Your task to perform on an android device: Search for pizza restaurants on Maps Image 0: 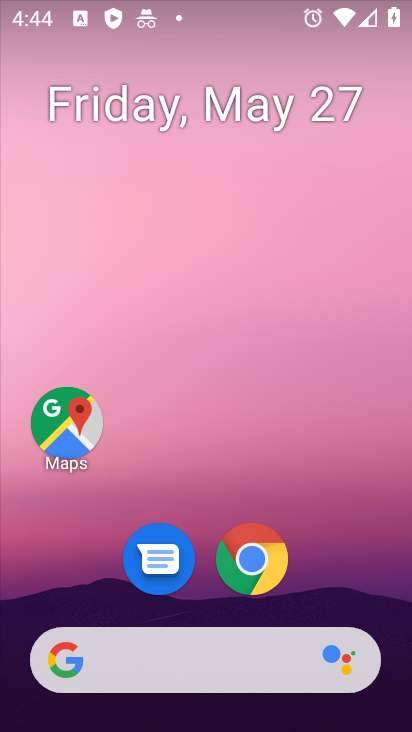
Step 0: drag from (246, 660) to (217, 5)
Your task to perform on an android device: Search for pizza restaurants on Maps Image 1: 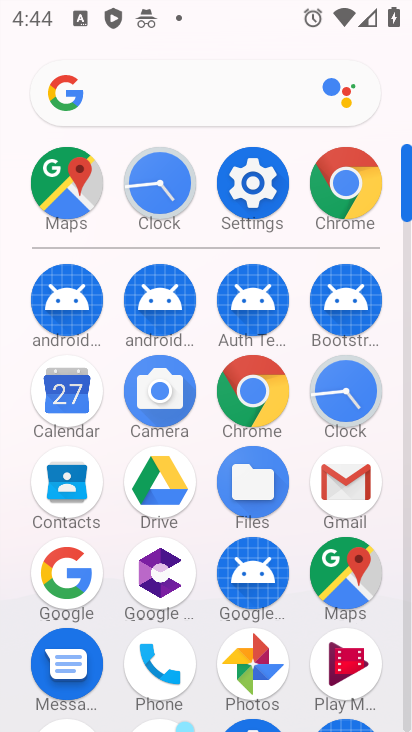
Step 1: click (344, 560)
Your task to perform on an android device: Search for pizza restaurants on Maps Image 2: 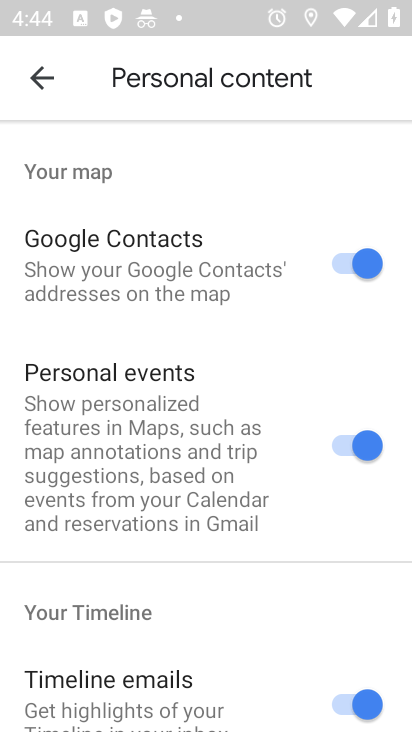
Step 2: press back button
Your task to perform on an android device: Search for pizza restaurants on Maps Image 3: 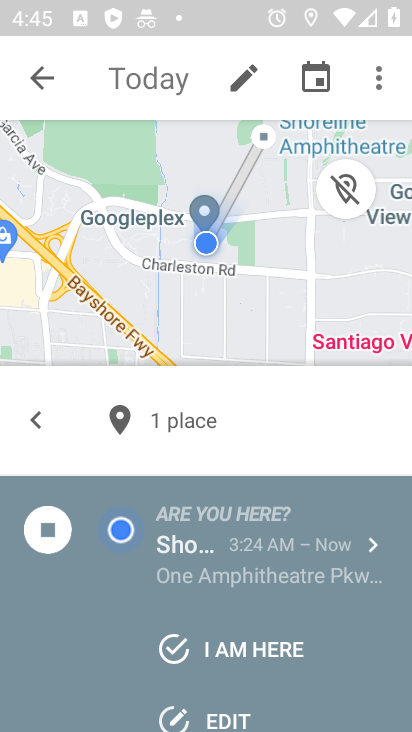
Step 3: press back button
Your task to perform on an android device: Search for pizza restaurants on Maps Image 4: 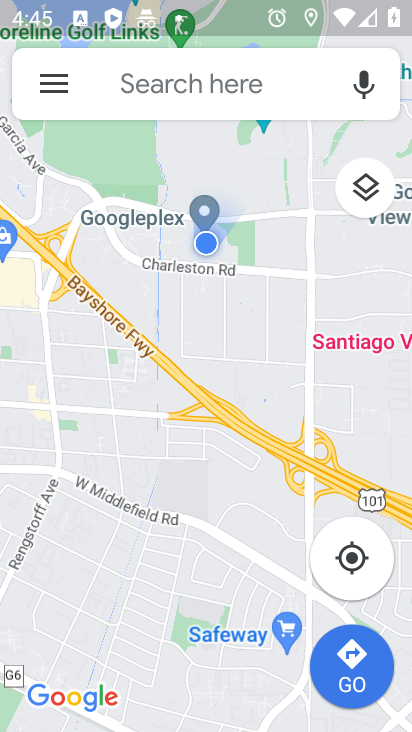
Step 4: click (236, 93)
Your task to perform on an android device: Search for pizza restaurants on Maps Image 5: 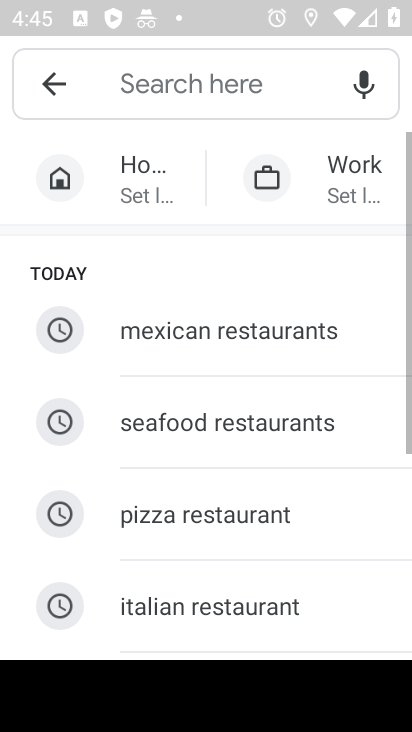
Step 5: click (289, 526)
Your task to perform on an android device: Search for pizza restaurants on Maps Image 6: 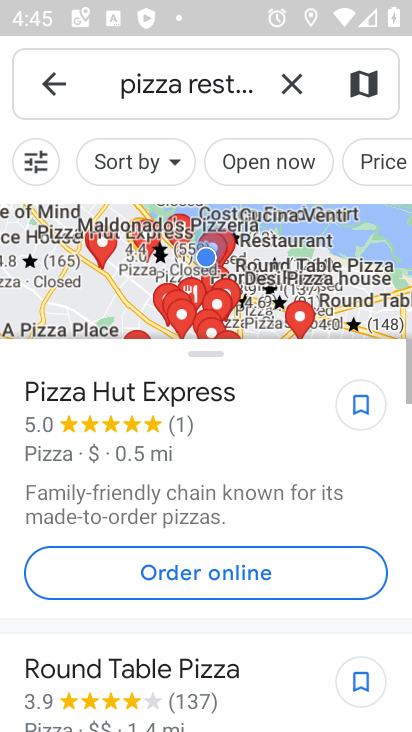
Step 6: task complete